Your task to perform on an android device: Toggle the flashlight Image 0: 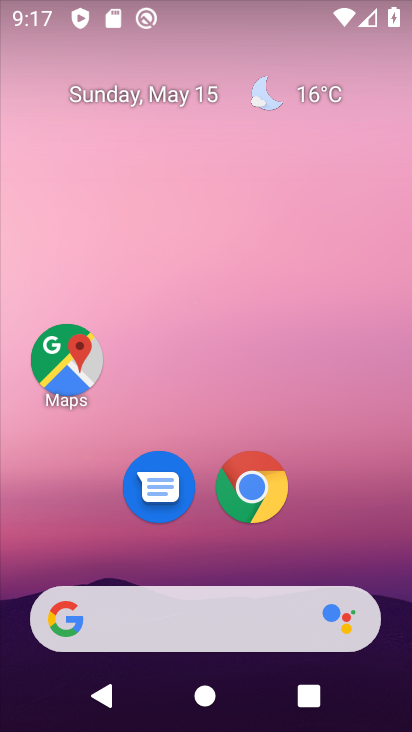
Step 0: drag from (357, 540) to (377, 128)
Your task to perform on an android device: Toggle the flashlight Image 1: 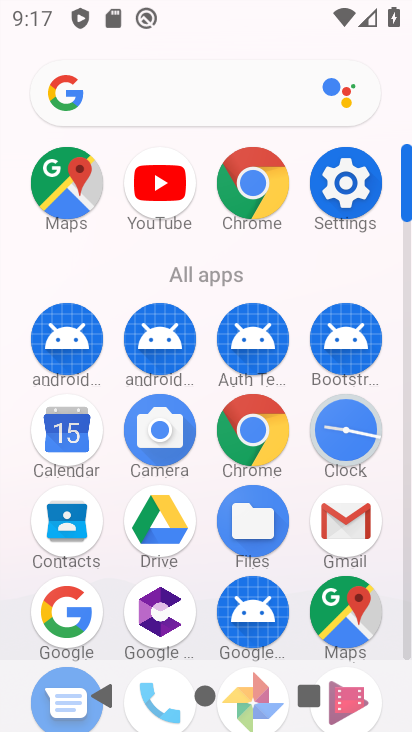
Step 1: click (357, 183)
Your task to perform on an android device: Toggle the flashlight Image 2: 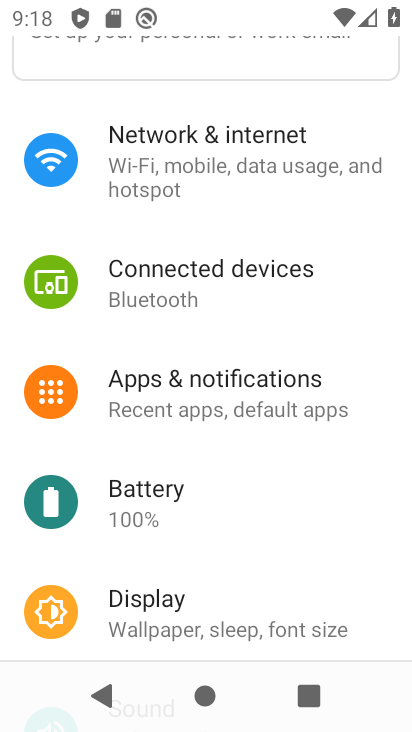
Step 2: drag from (355, 153) to (350, 458)
Your task to perform on an android device: Toggle the flashlight Image 3: 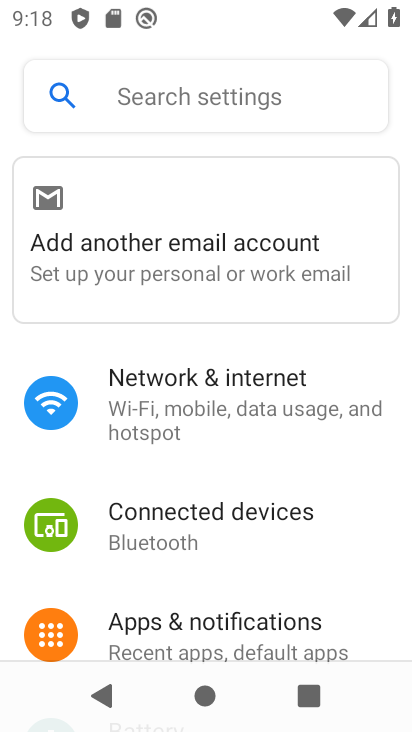
Step 3: click (211, 106)
Your task to perform on an android device: Toggle the flashlight Image 4: 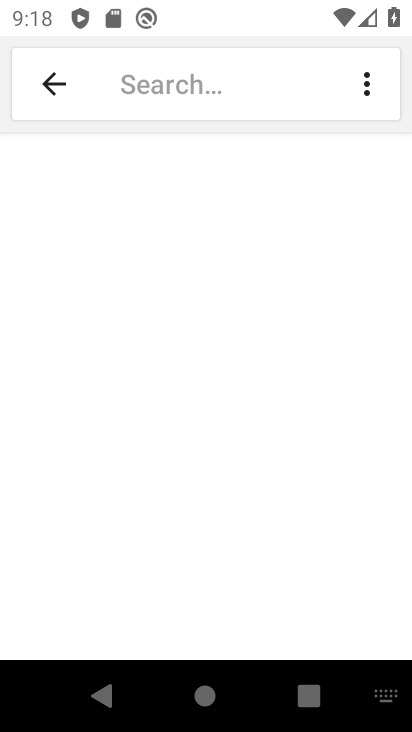
Step 4: type "flashlight"
Your task to perform on an android device: Toggle the flashlight Image 5: 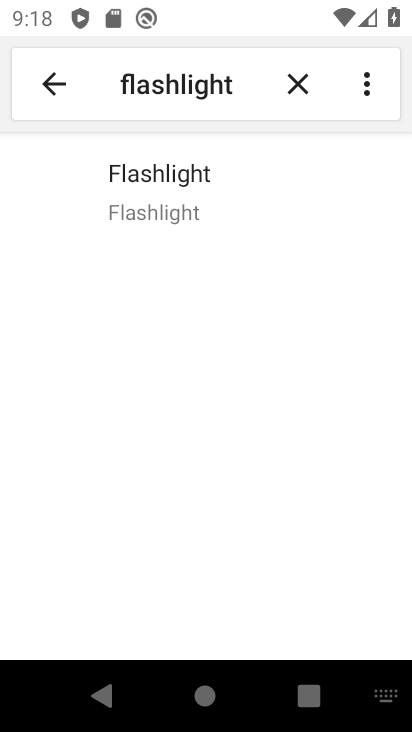
Step 5: click (148, 201)
Your task to perform on an android device: Toggle the flashlight Image 6: 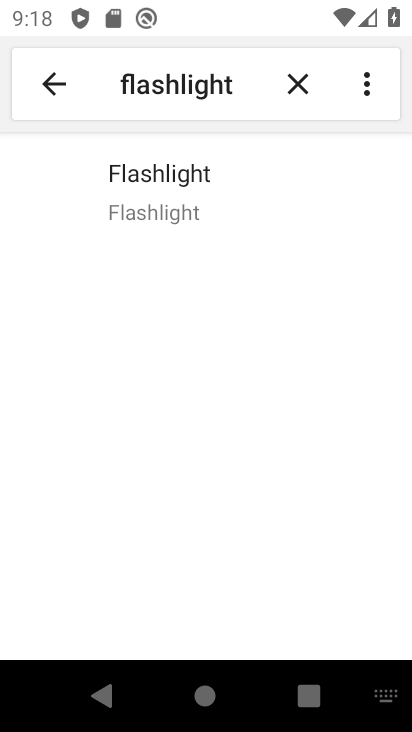
Step 6: task complete